Your task to perform on an android device: Search for pizza restaurants on Maps Image 0: 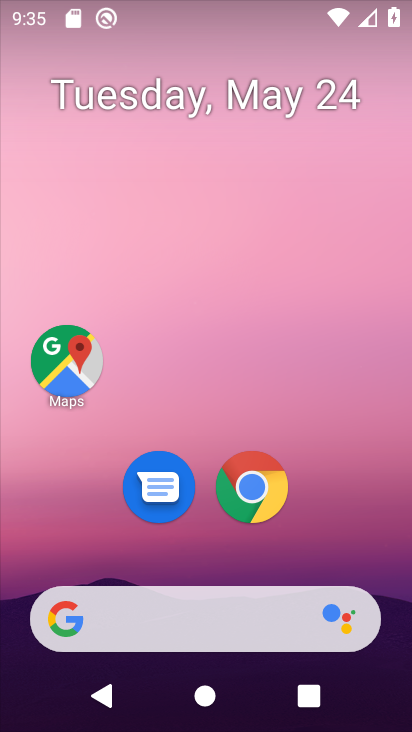
Step 0: click (71, 372)
Your task to perform on an android device: Search for pizza restaurants on Maps Image 1: 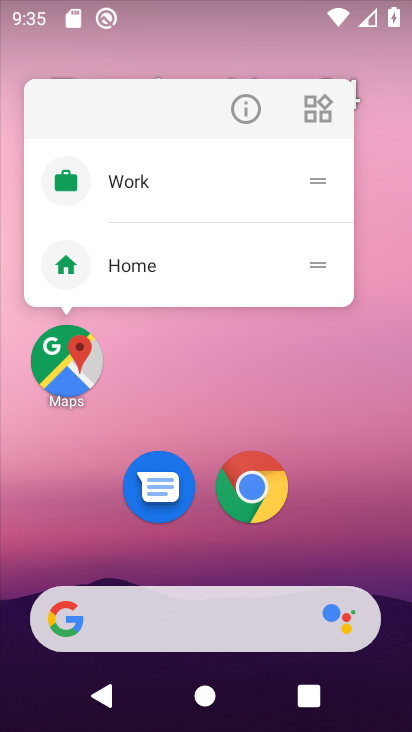
Step 1: click (71, 373)
Your task to perform on an android device: Search for pizza restaurants on Maps Image 2: 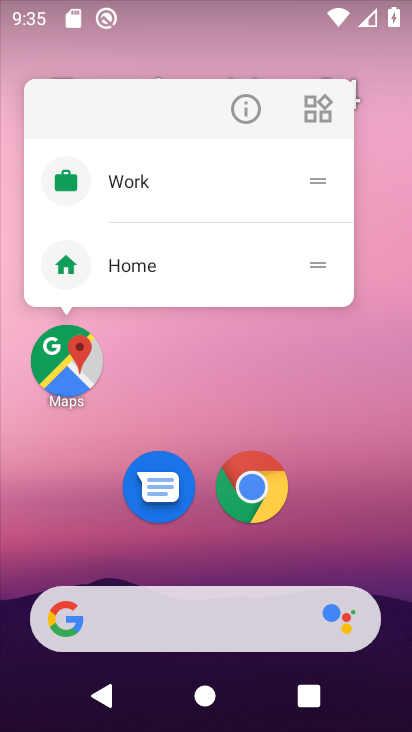
Step 2: click (71, 373)
Your task to perform on an android device: Search for pizza restaurants on Maps Image 3: 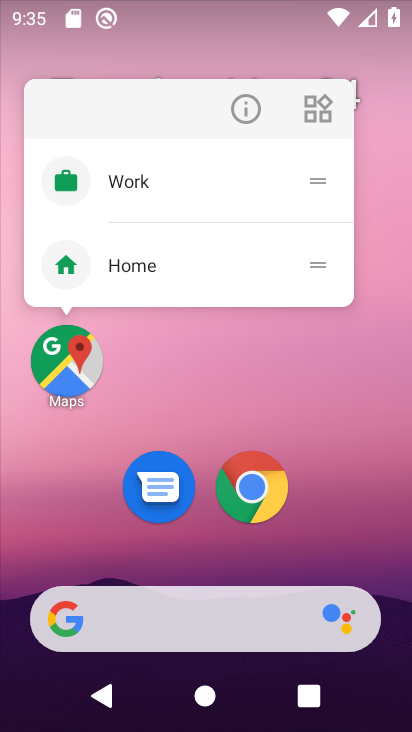
Step 3: click (68, 375)
Your task to perform on an android device: Search for pizza restaurants on Maps Image 4: 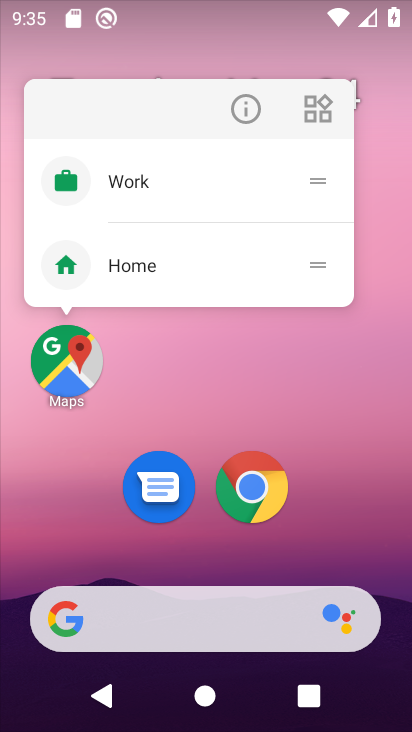
Step 4: click (68, 375)
Your task to perform on an android device: Search for pizza restaurants on Maps Image 5: 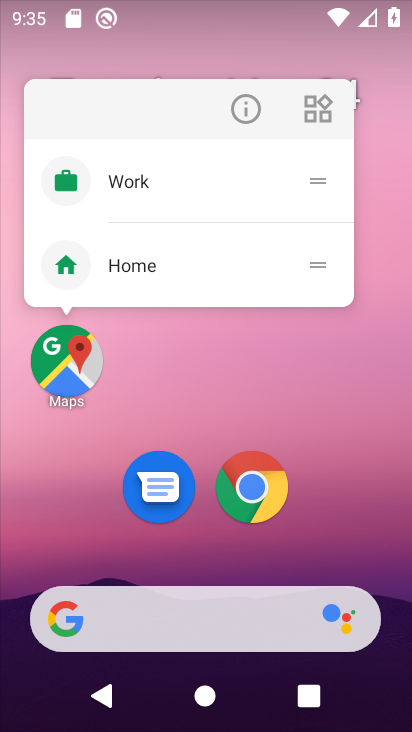
Step 5: click (59, 367)
Your task to perform on an android device: Search for pizza restaurants on Maps Image 6: 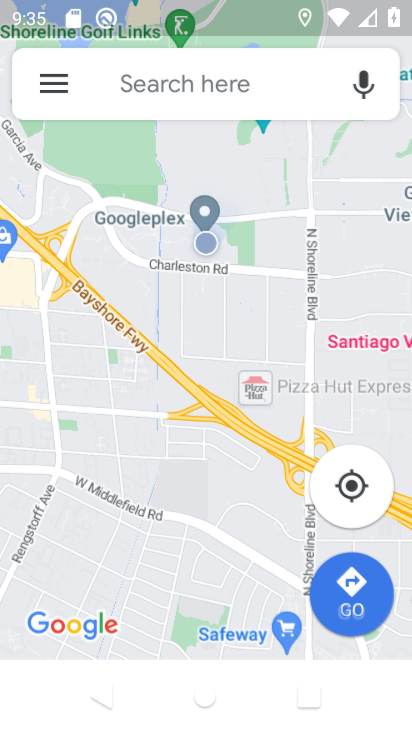
Step 6: click (168, 88)
Your task to perform on an android device: Search for pizza restaurants on Maps Image 7: 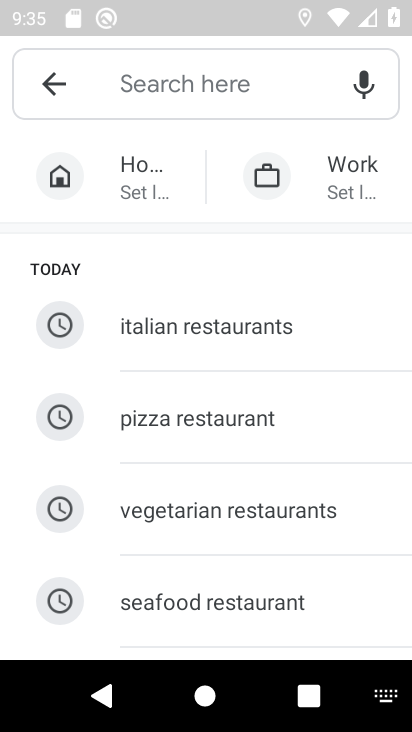
Step 7: click (227, 407)
Your task to perform on an android device: Search for pizza restaurants on Maps Image 8: 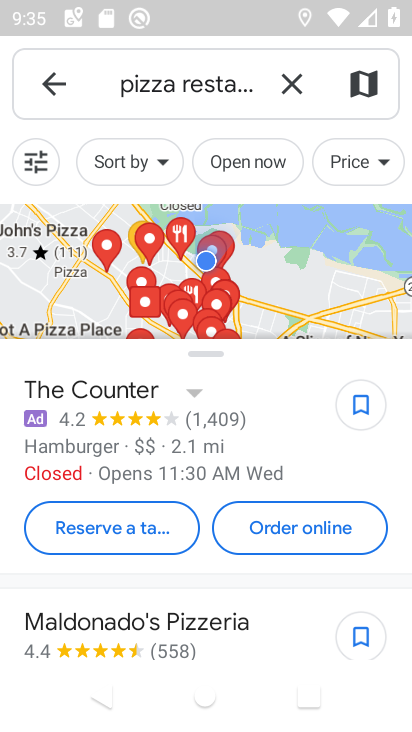
Step 8: task complete